Your task to perform on an android device: open sync settings in chrome Image 0: 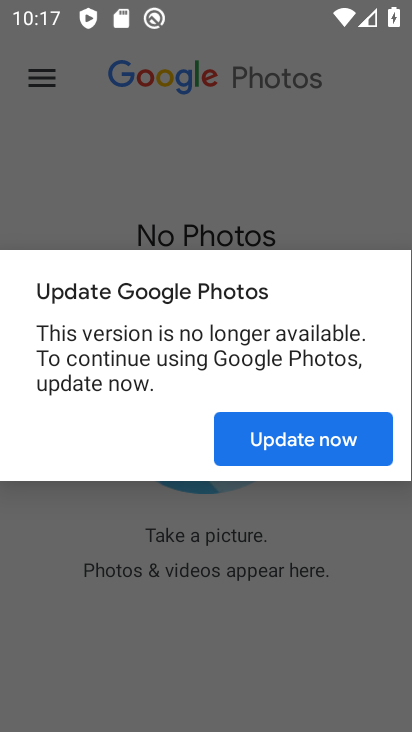
Step 0: press home button
Your task to perform on an android device: open sync settings in chrome Image 1: 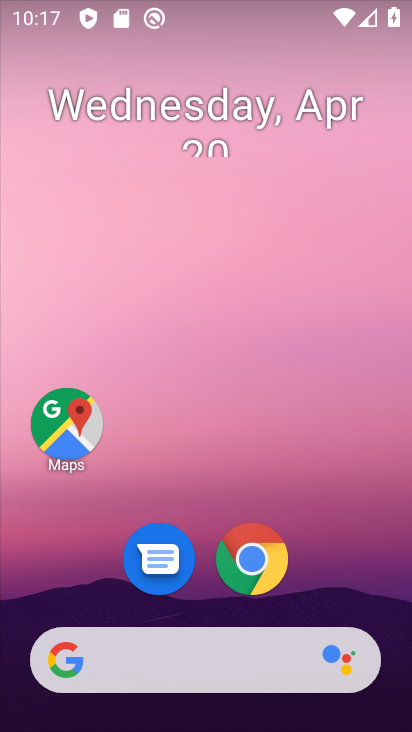
Step 1: click (249, 553)
Your task to perform on an android device: open sync settings in chrome Image 2: 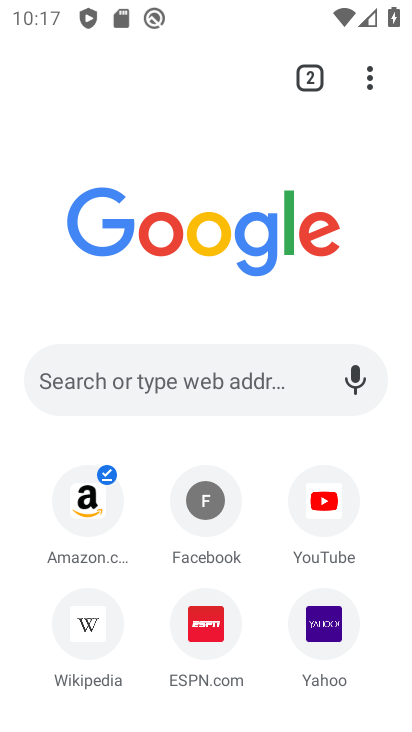
Step 2: click (371, 80)
Your task to perform on an android device: open sync settings in chrome Image 3: 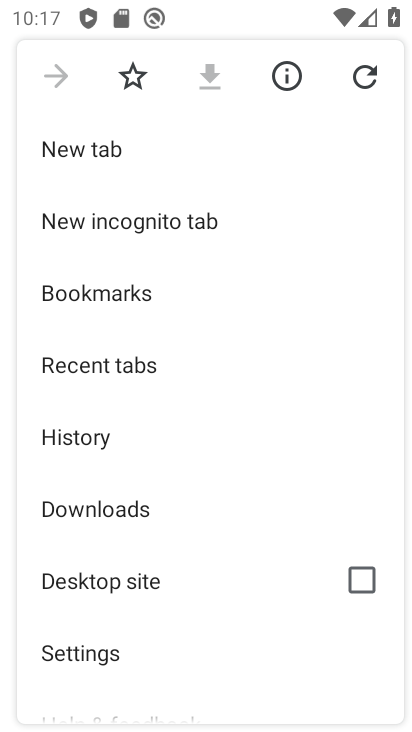
Step 3: click (83, 648)
Your task to perform on an android device: open sync settings in chrome Image 4: 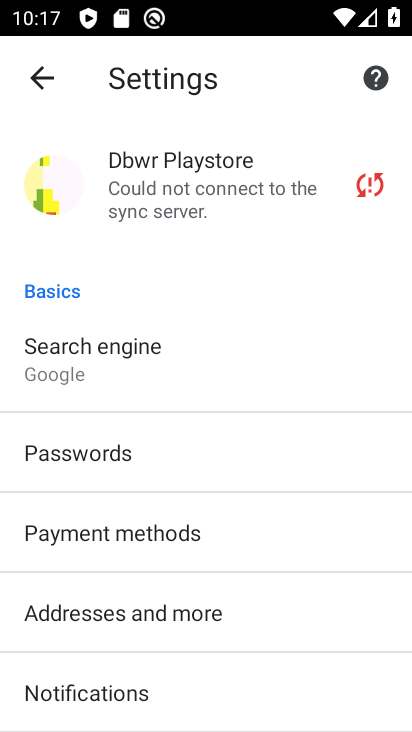
Step 4: drag from (196, 611) to (184, 284)
Your task to perform on an android device: open sync settings in chrome Image 5: 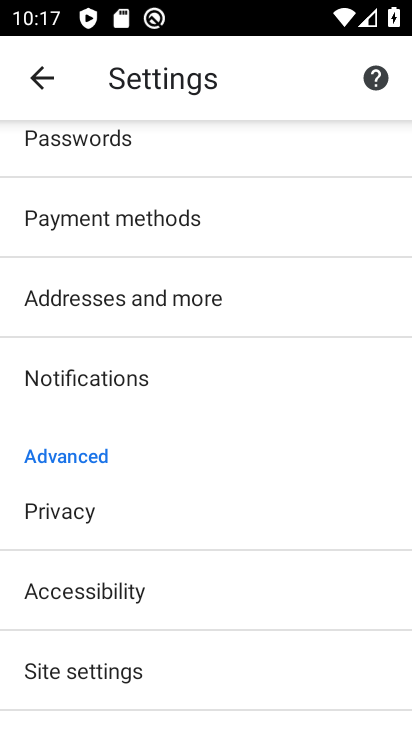
Step 5: click (106, 669)
Your task to perform on an android device: open sync settings in chrome Image 6: 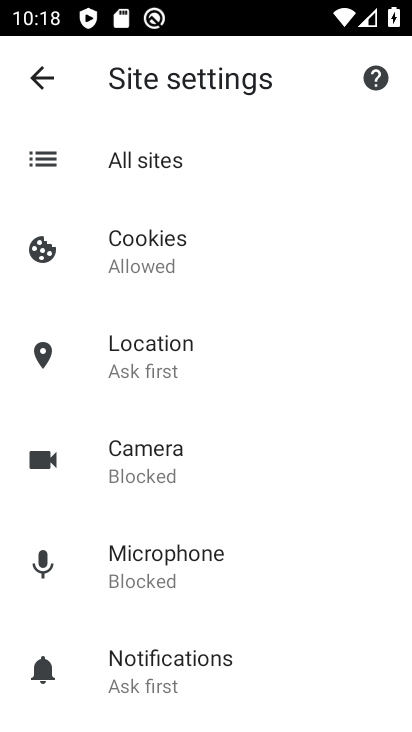
Step 6: drag from (207, 616) to (226, 301)
Your task to perform on an android device: open sync settings in chrome Image 7: 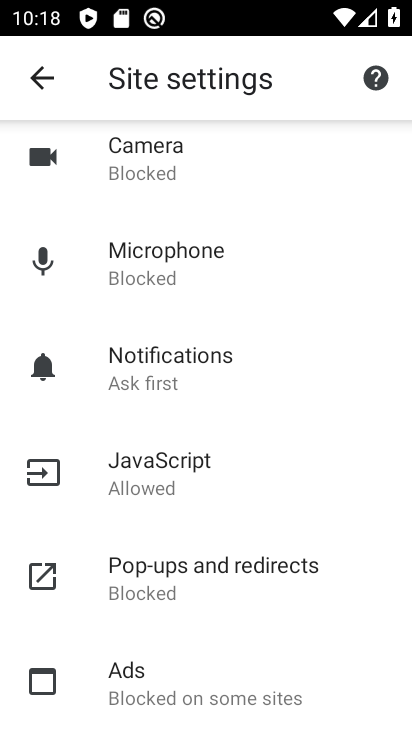
Step 7: drag from (178, 651) to (197, 320)
Your task to perform on an android device: open sync settings in chrome Image 8: 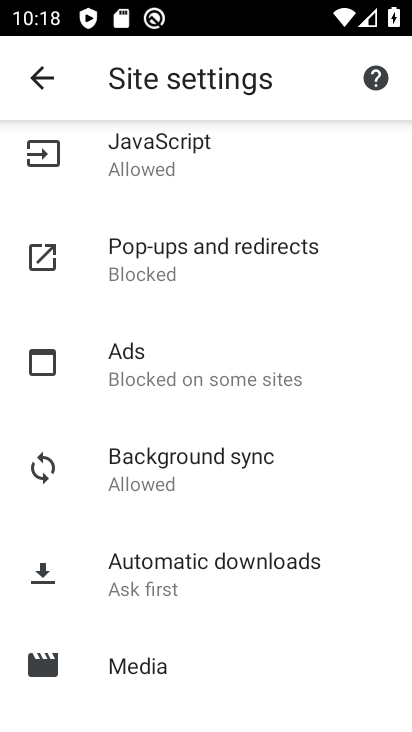
Step 8: click (154, 459)
Your task to perform on an android device: open sync settings in chrome Image 9: 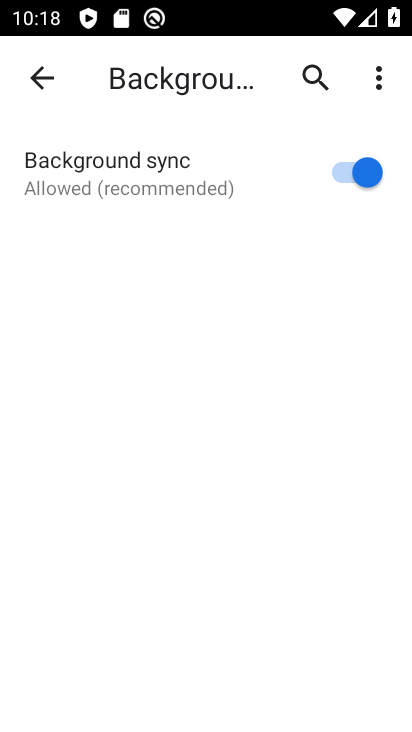
Step 9: task complete